Your task to perform on an android device: clear all cookies in the chrome app Image 0: 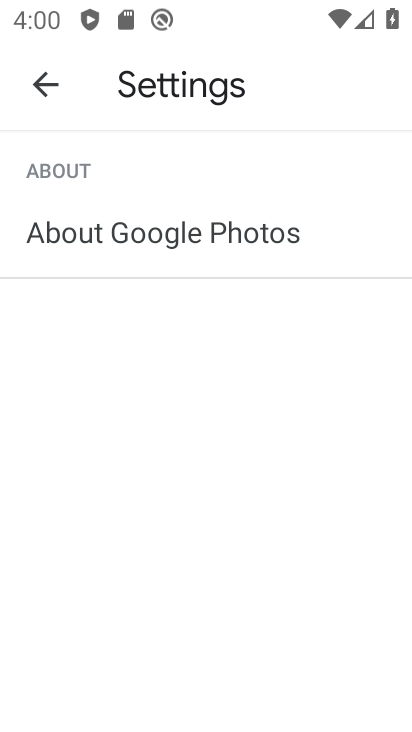
Step 0: press home button
Your task to perform on an android device: clear all cookies in the chrome app Image 1: 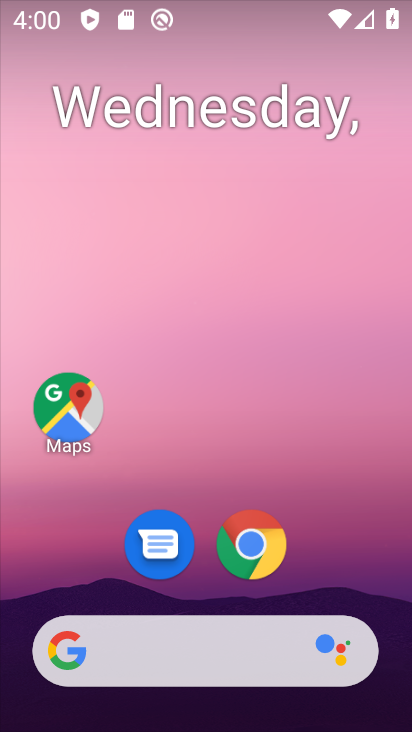
Step 1: click (270, 548)
Your task to perform on an android device: clear all cookies in the chrome app Image 2: 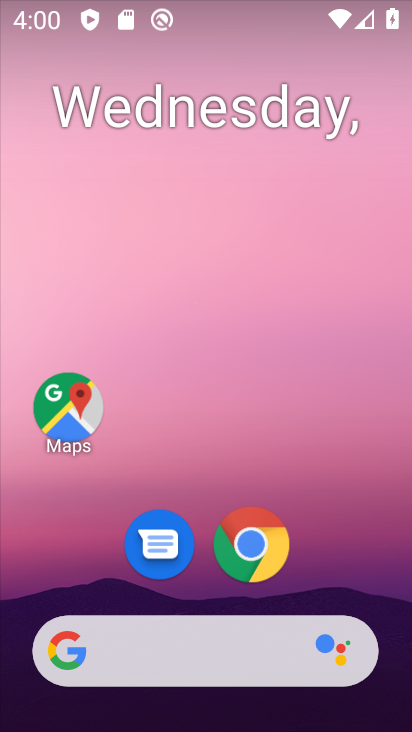
Step 2: click (264, 551)
Your task to perform on an android device: clear all cookies in the chrome app Image 3: 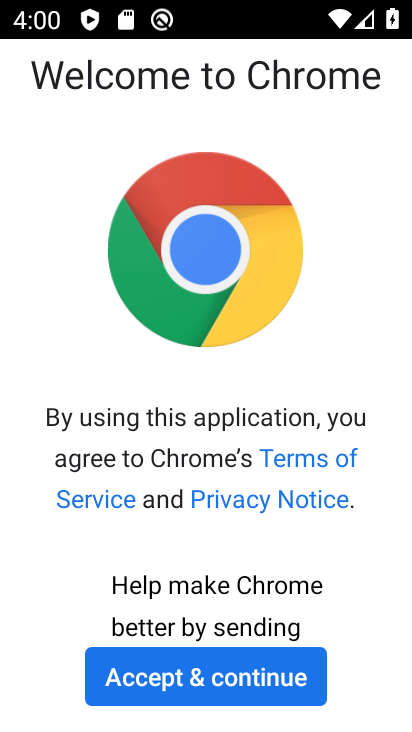
Step 3: click (277, 694)
Your task to perform on an android device: clear all cookies in the chrome app Image 4: 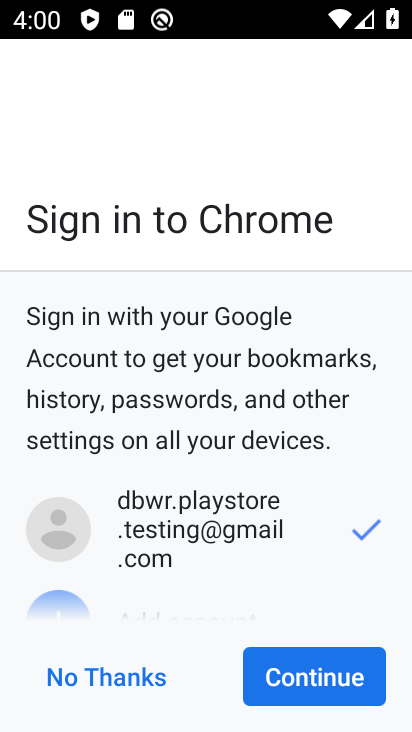
Step 4: click (343, 691)
Your task to perform on an android device: clear all cookies in the chrome app Image 5: 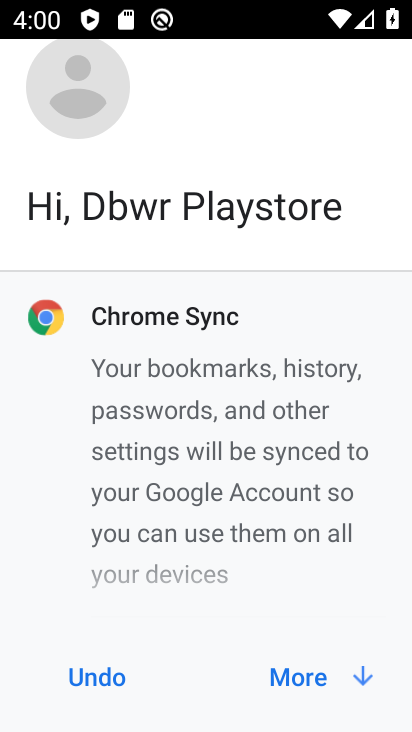
Step 5: click (322, 672)
Your task to perform on an android device: clear all cookies in the chrome app Image 6: 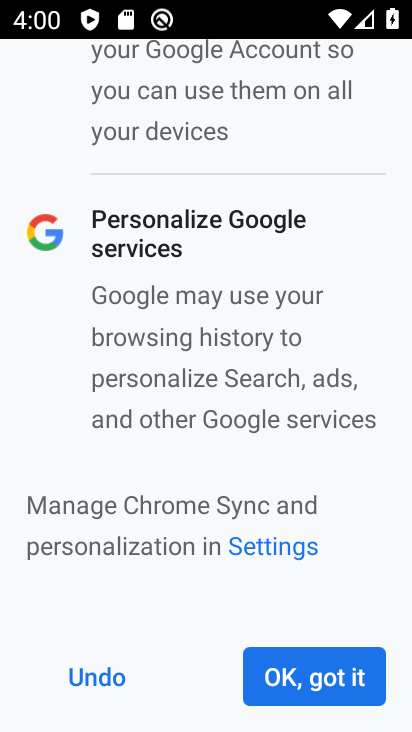
Step 6: click (345, 672)
Your task to perform on an android device: clear all cookies in the chrome app Image 7: 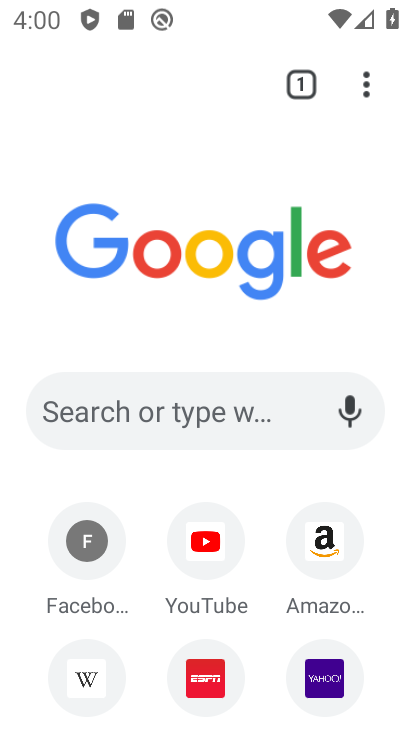
Step 7: drag from (377, 74) to (208, 610)
Your task to perform on an android device: clear all cookies in the chrome app Image 8: 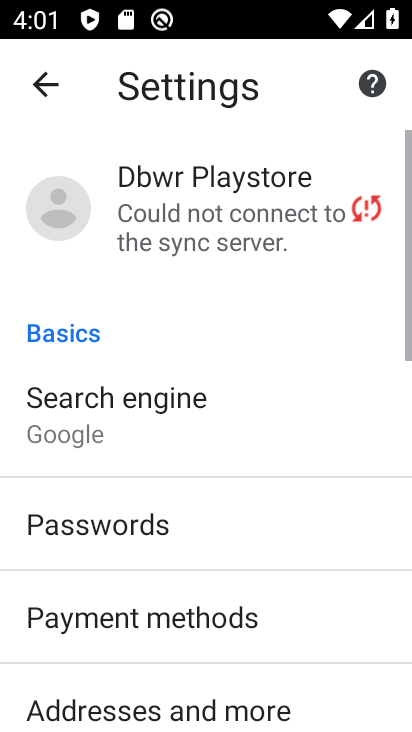
Step 8: drag from (190, 686) to (310, 313)
Your task to perform on an android device: clear all cookies in the chrome app Image 9: 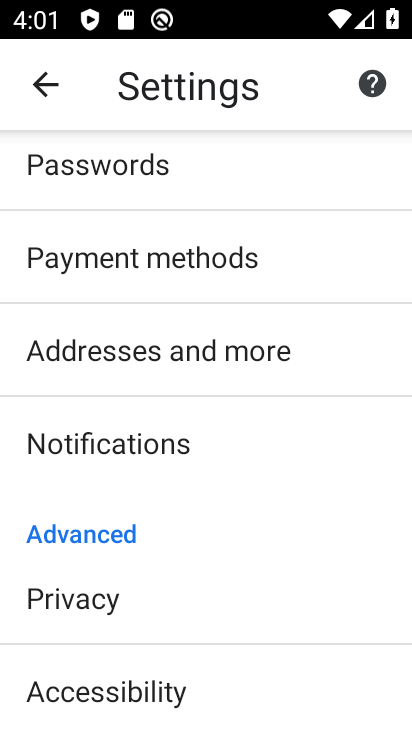
Step 9: click (158, 621)
Your task to perform on an android device: clear all cookies in the chrome app Image 10: 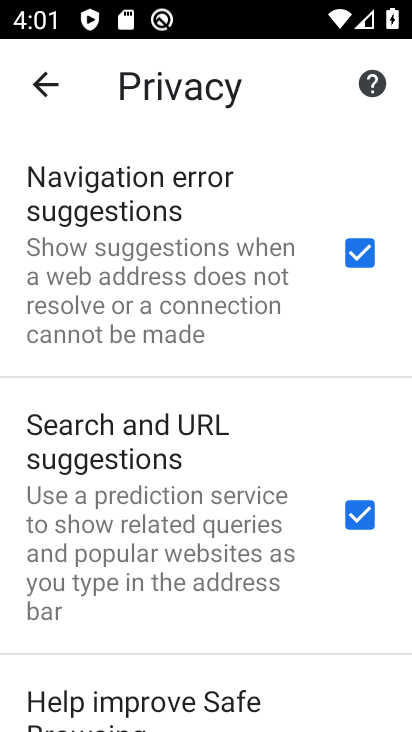
Step 10: drag from (163, 702) to (299, 202)
Your task to perform on an android device: clear all cookies in the chrome app Image 11: 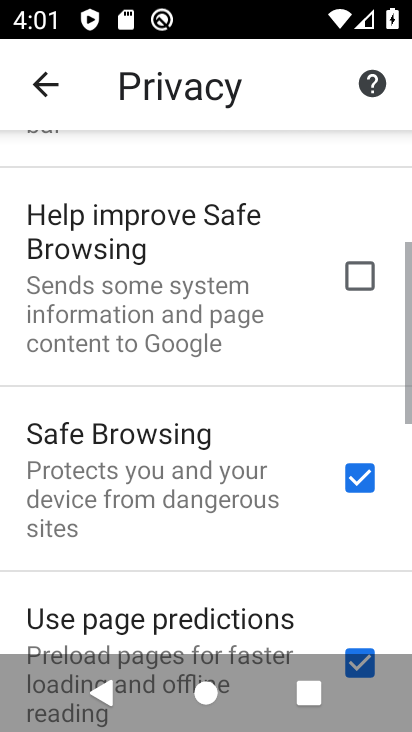
Step 11: drag from (188, 586) to (300, 178)
Your task to perform on an android device: clear all cookies in the chrome app Image 12: 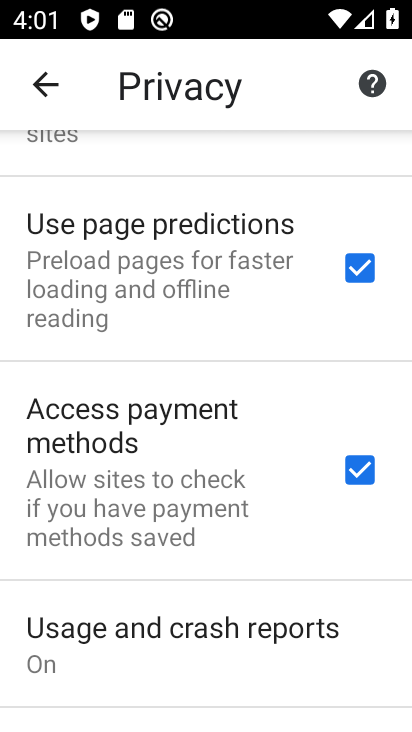
Step 12: drag from (134, 658) to (255, 197)
Your task to perform on an android device: clear all cookies in the chrome app Image 13: 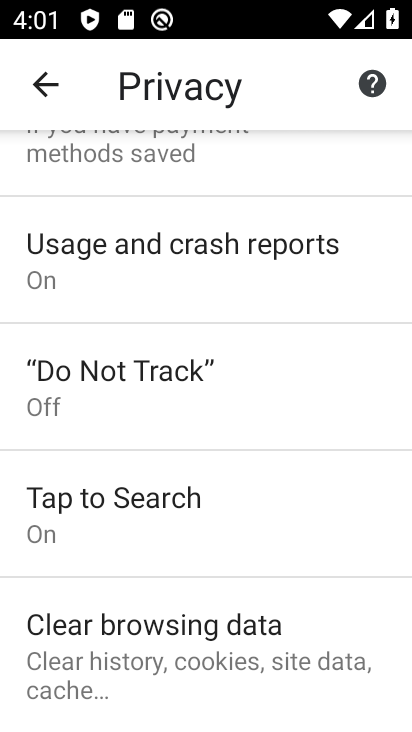
Step 13: click (197, 660)
Your task to perform on an android device: clear all cookies in the chrome app Image 14: 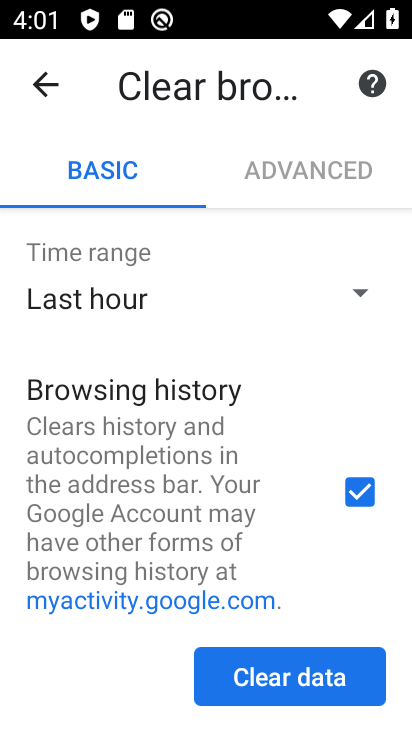
Step 14: click (338, 495)
Your task to perform on an android device: clear all cookies in the chrome app Image 15: 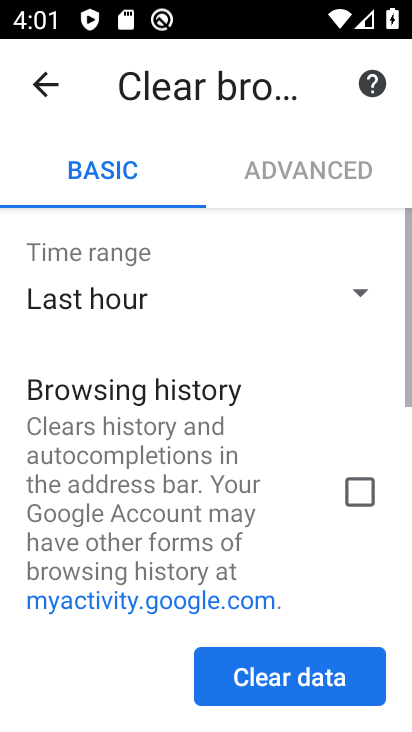
Step 15: drag from (181, 566) to (272, 221)
Your task to perform on an android device: clear all cookies in the chrome app Image 16: 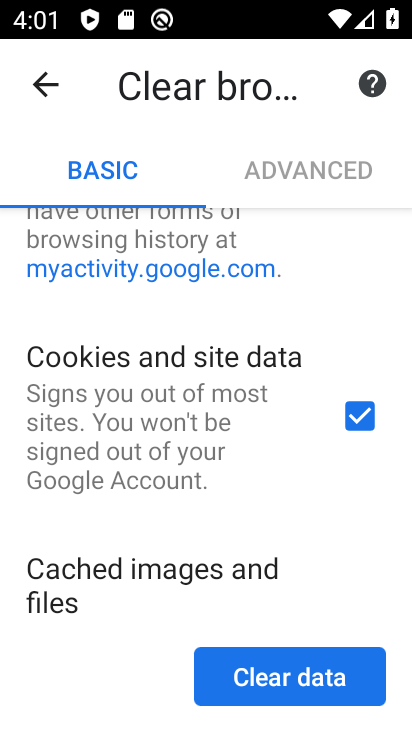
Step 16: drag from (239, 558) to (280, 343)
Your task to perform on an android device: clear all cookies in the chrome app Image 17: 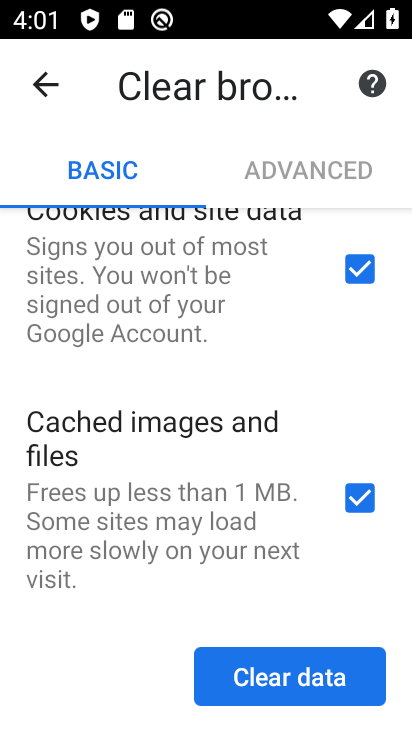
Step 17: click (367, 510)
Your task to perform on an android device: clear all cookies in the chrome app Image 18: 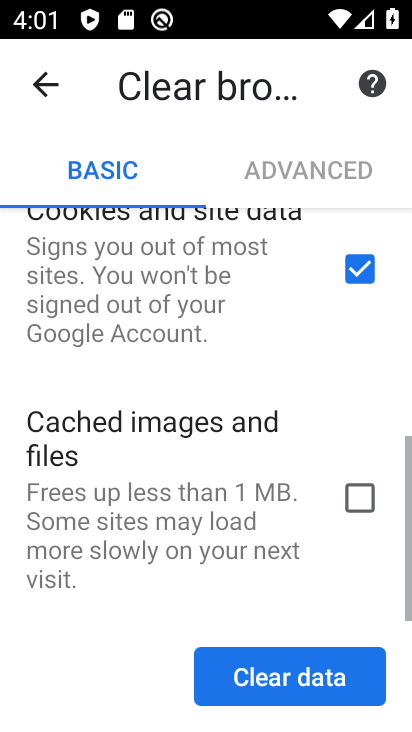
Step 18: click (324, 683)
Your task to perform on an android device: clear all cookies in the chrome app Image 19: 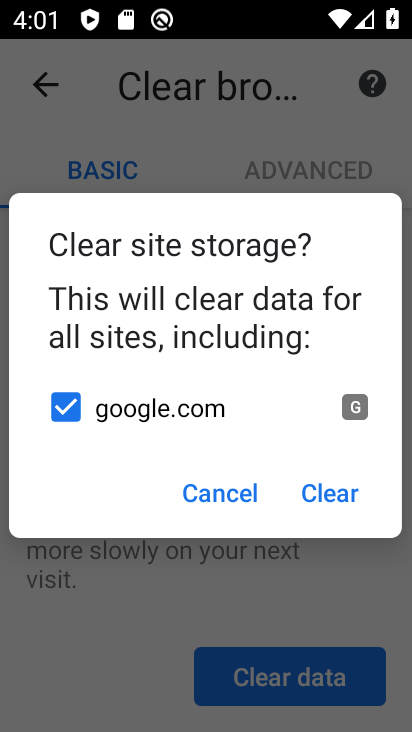
Step 19: click (338, 518)
Your task to perform on an android device: clear all cookies in the chrome app Image 20: 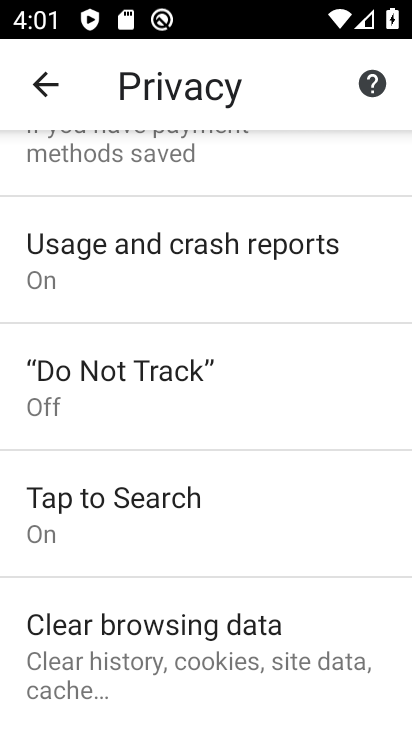
Step 20: task complete